Your task to perform on an android device: manage bookmarks in the chrome app Image 0: 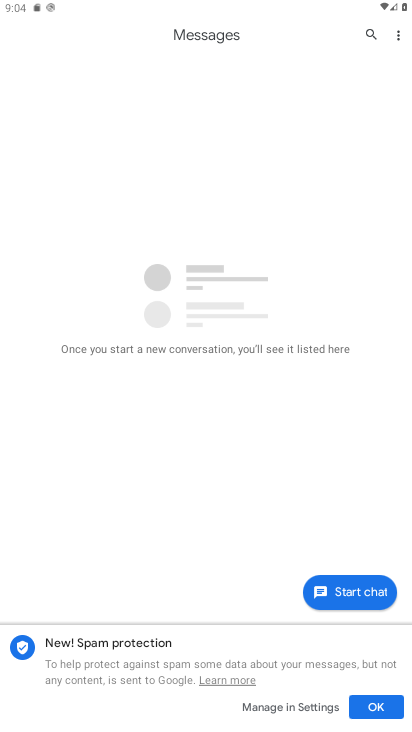
Step 0: press home button
Your task to perform on an android device: manage bookmarks in the chrome app Image 1: 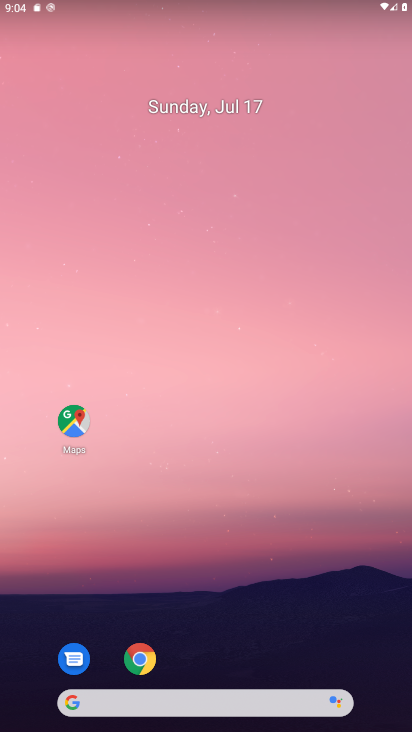
Step 1: click (148, 652)
Your task to perform on an android device: manage bookmarks in the chrome app Image 2: 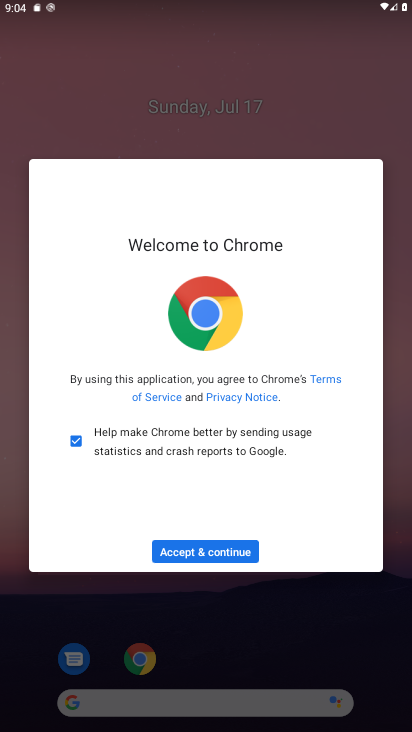
Step 2: click (194, 556)
Your task to perform on an android device: manage bookmarks in the chrome app Image 3: 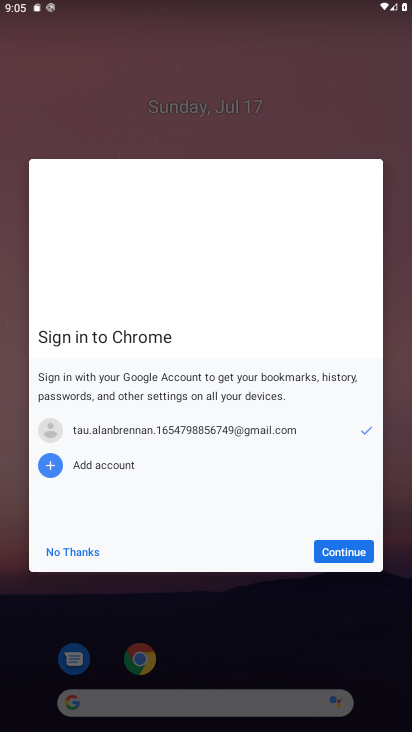
Step 3: click (330, 549)
Your task to perform on an android device: manage bookmarks in the chrome app Image 4: 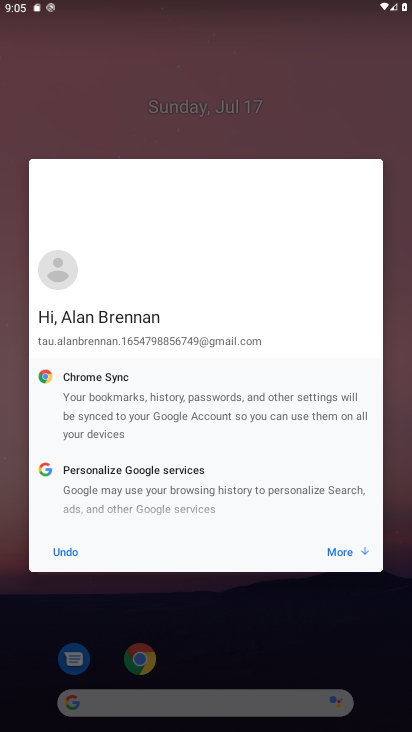
Step 4: click (330, 549)
Your task to perform on an android device: manage bookmarks in the chrome app Image 5: 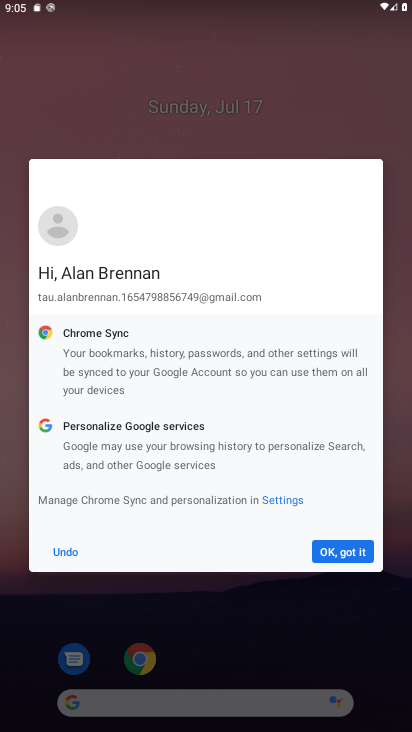
Step 5: click (338, 551)
Your task to perform on an android device: manage bookmarks in the chrome app Image 6: 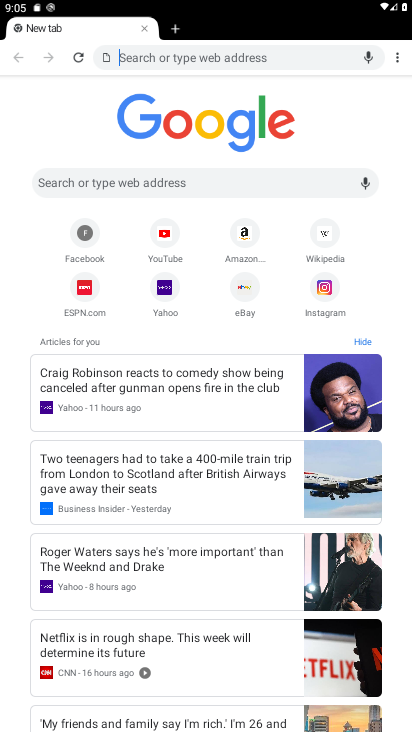
Step 6: task complete